Your task to perform on an android device: read, delete, or share a saved page in the chrome app Image 0: 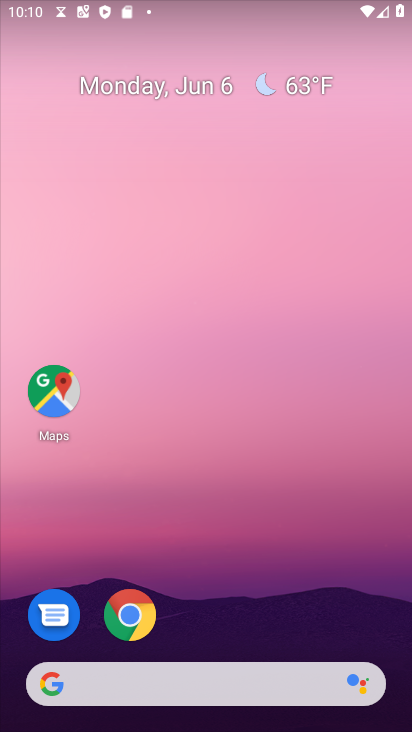
Step 0: press home button
Your task to perform on an android device: read, delete, or share a saved page in the chrome app Image 1: 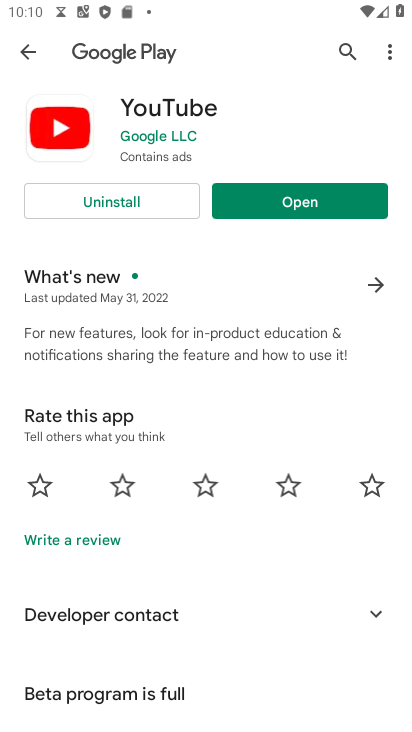
Step 1: drag from (214, 644) to (231, 180)
Your task to perform on an android device: read, delete, or share a saved page in the chrome app Image 2: 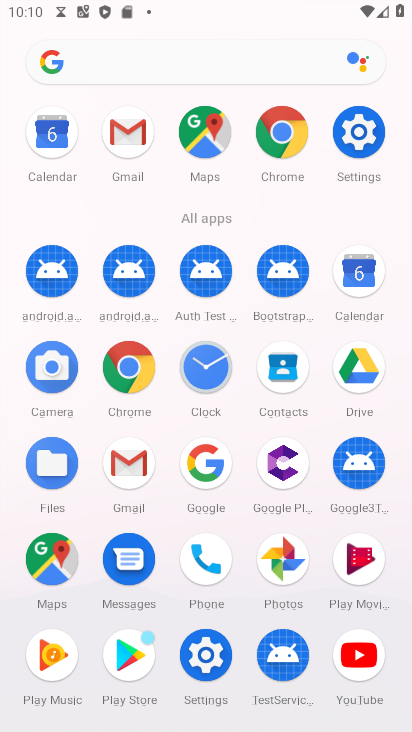
Step 2: click (131, 361)
Your task to perform on an android device: read, delete, or share a saved page in the chrome app Image 3: 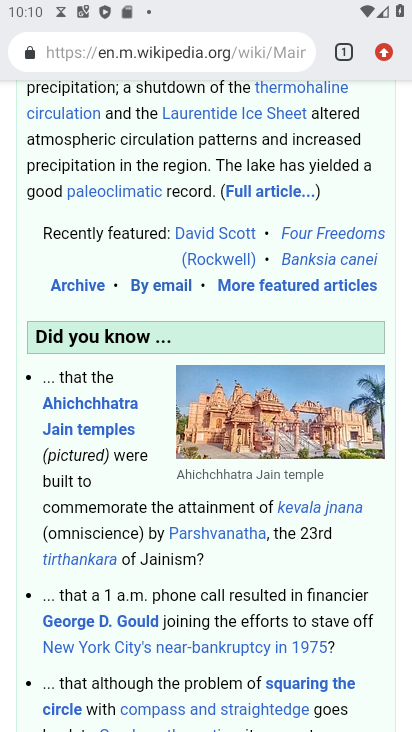
Step 3: click (382, 47)
Your task to perform on an android device: read, delete, or share a saved page in the chrome app Image 4: 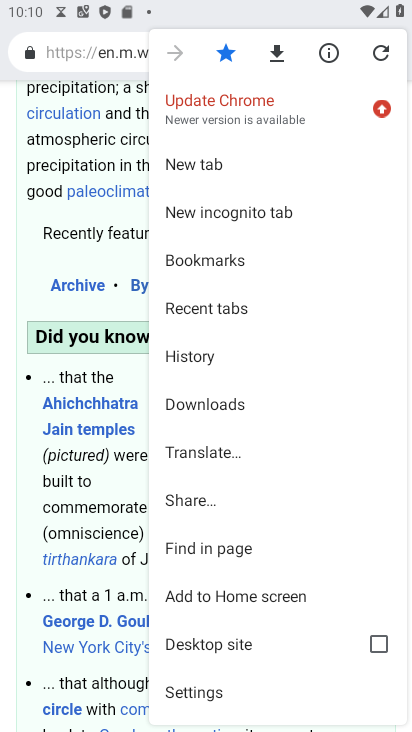
Step 4: click (256, 399)
Your task to perform on an android device: read, delete, or share a saved page in the chrome app Image 5: 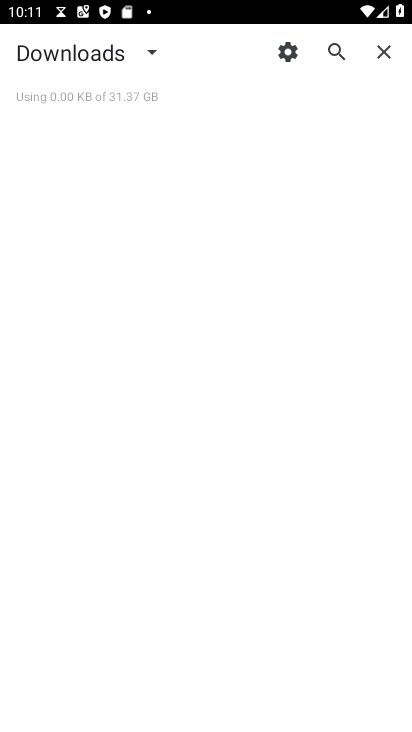
Step 5: task complete